Your task to perform on an android device: open app "Spotify" (install if not already installed), go to login, and select forgot password Image 0: 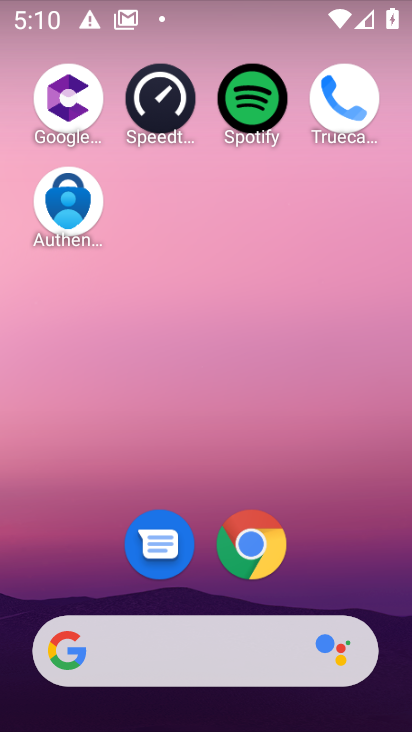
Step 0: drag from (201, 656) to (212, 45)
Your task to perform on an android device: open app "Spotify" (install if not already installed), go to login, and select forgot password Image 1: 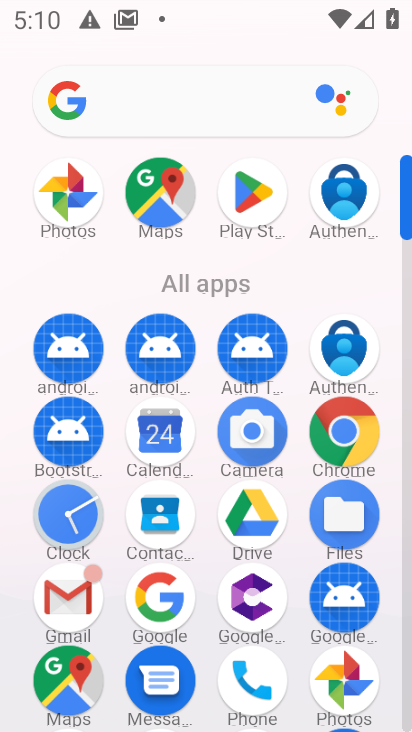
Step 1: click (255, 192)
Your task to perform on an android device: open app "Spotify" (install if not already installed), go to login, and select forgot password Image 2: 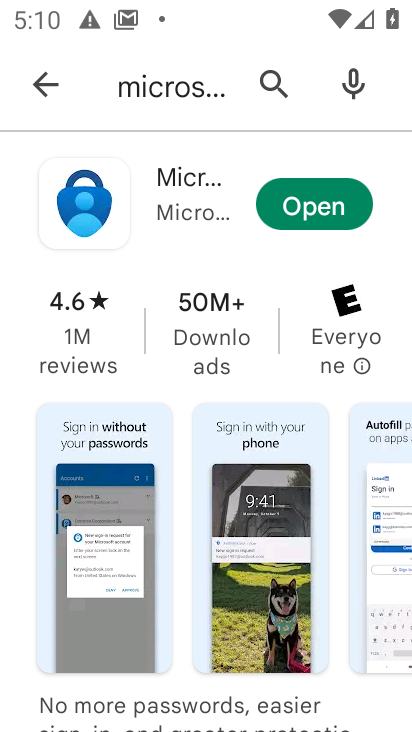
Step 2: press back button
Your task to perform on an android device: open app "Spotify" (install if not already installed), go to login, and select forgot password Image 3: 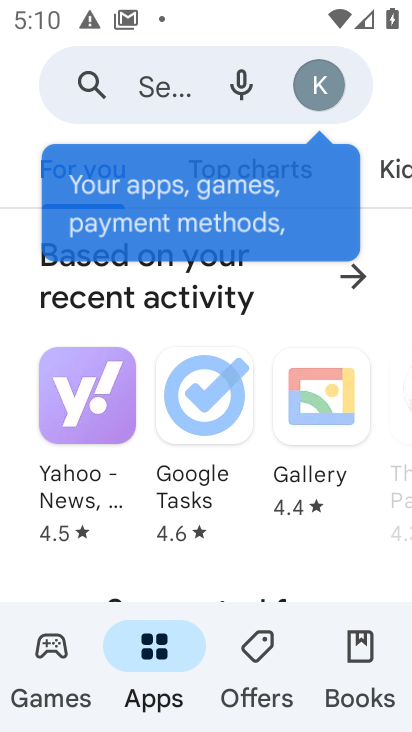
Step 3: click (163, 93)
Your task to perform on an android device: open app "Spotify" (install if not already installed), go to login, and select forgot password Image 4: 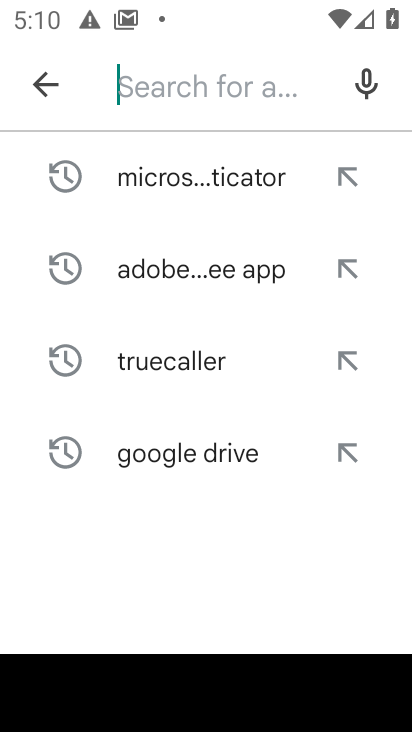
Step 4: type "Spotify"
Your task to perform on an android device: open app "Spotify" (install if not already installed), go to login, and select forgot password Image 5: 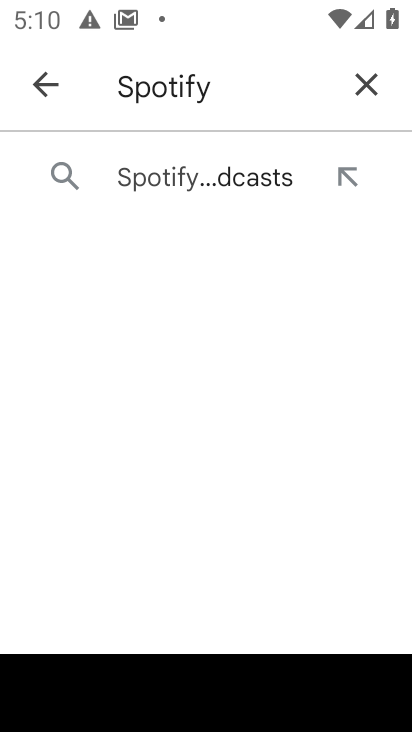
Step 5: click (190, 186)
Your task to perform on an android device: open app "Spotify" (install if not already installed), go to login, and select forgot password Image 6: 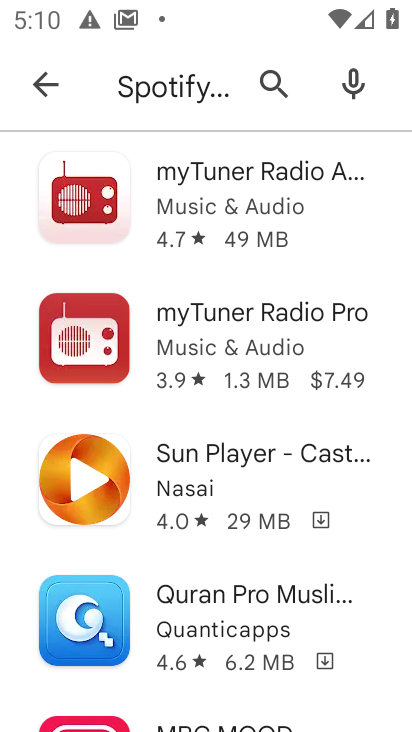
Step 6: task complete